Your task to perform on an android device: Search for Italian restaurants on Maps Image 0: 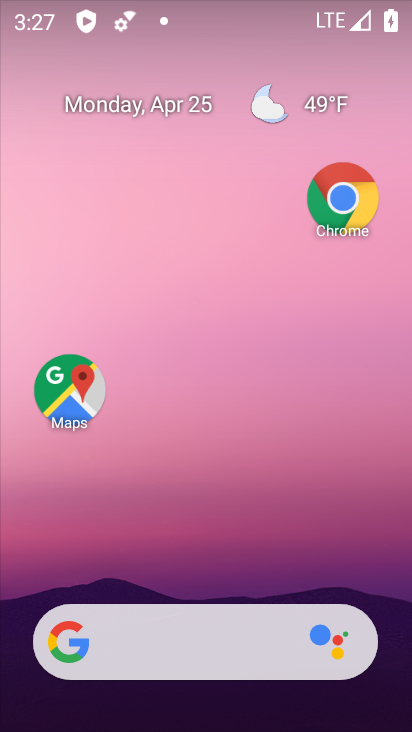
Step 0: drag from (209, 619) to (362, 22)
Your task to perform on an android device: Search for Italian restaurants on Maps Image 1: 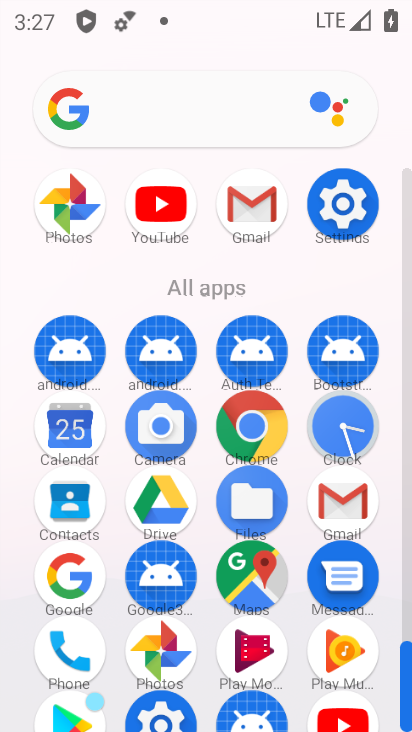
Step 1: click (248, 578)
Your task to perform on an android device: Search for Italian restaurants on Maps Image 2: 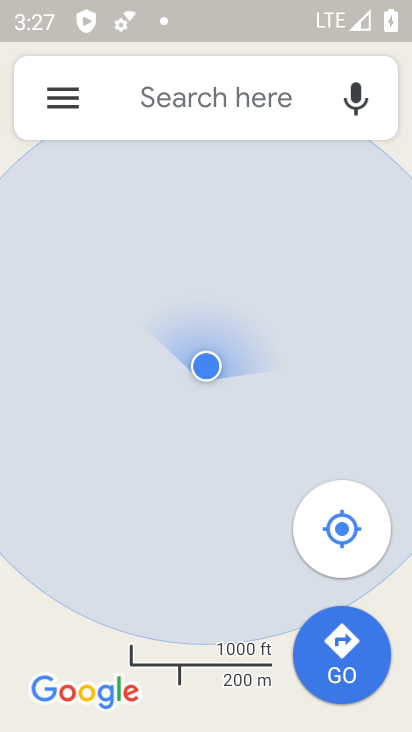
Step 2: click (212, 95)
Your task to perform on an android device: Search for Italian restaurants on Maps Image 3: 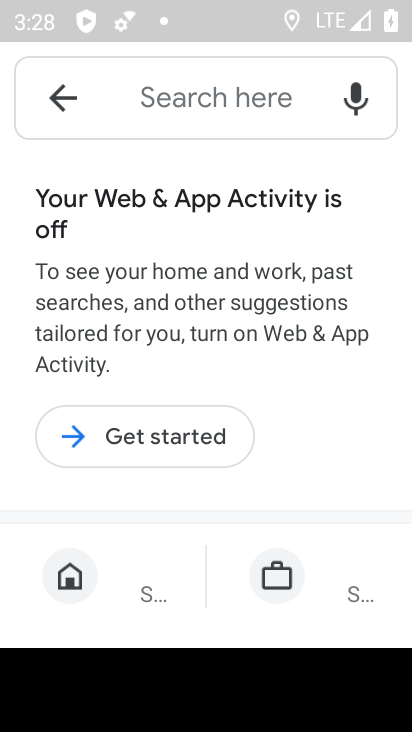
Step 3: click (201, 90)
Your task to perform on an android device: Search for Italian restaurants on Maps Image 4: 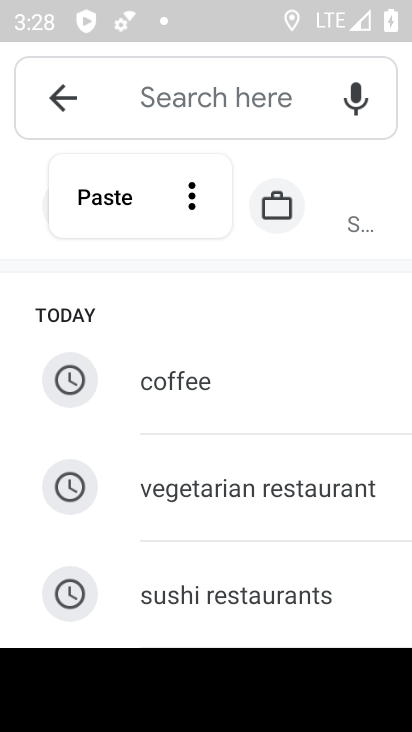
Step 4: drag from (185, 503) to (327, 178)
Your task to perform on an android device: Search for Italian restaurants on Maps Image 5: 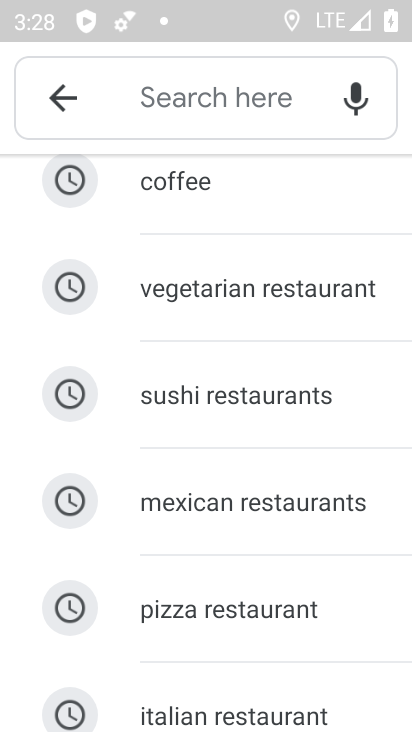
Step 5: click (186, 723)
Your task to perform on an android device: Search for Italian restaurants on Maps Image 6: 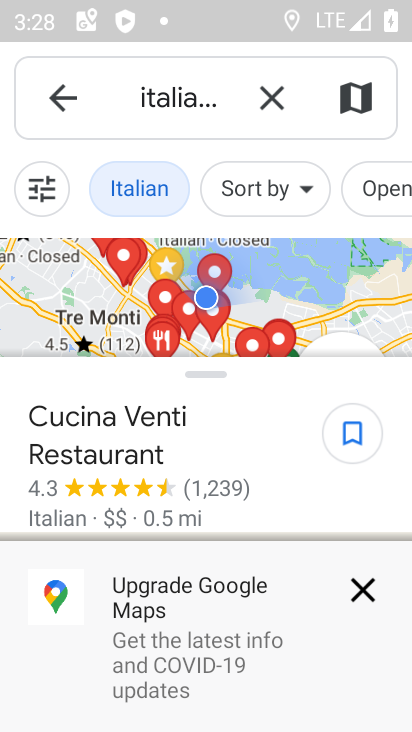
Step 6: task complete